Your task to perform on an android device: Open the calendar and show me this week's events Image 0: 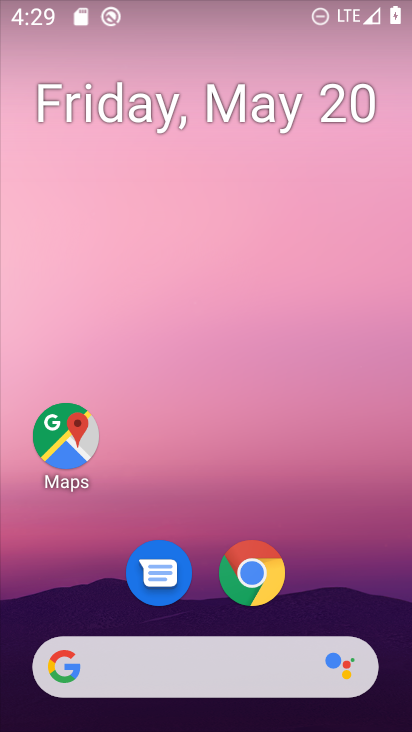
Step 0: drag from (384, 619) to (254, 275)
Your task to perform on an android device: Open the calendar and show me this week's events Image 1: 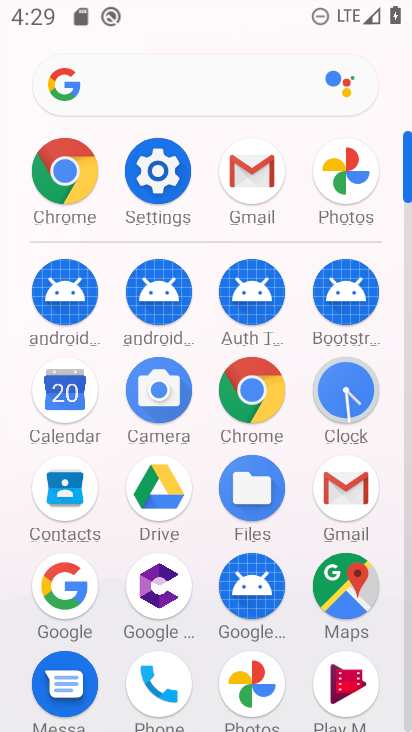
Step 1: click (64, 406)
Your task to perform on an android device: Open the calendar and show me this week's events Image 2: 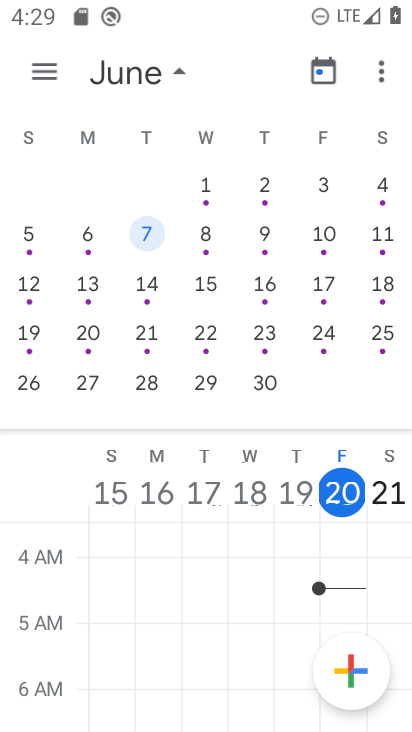
Step 2: click (177, 83)
Your task to perform on an android device: Open the calendar and show me this week's events Image 3: 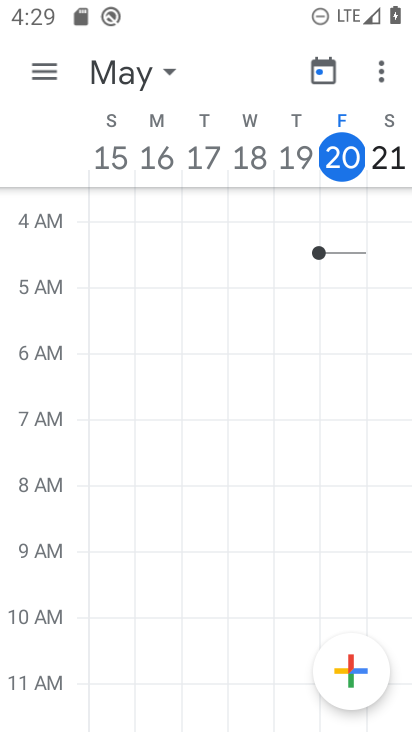
Step 3: task complete